Your task to perform on an android device: change notifications settings Image 0: 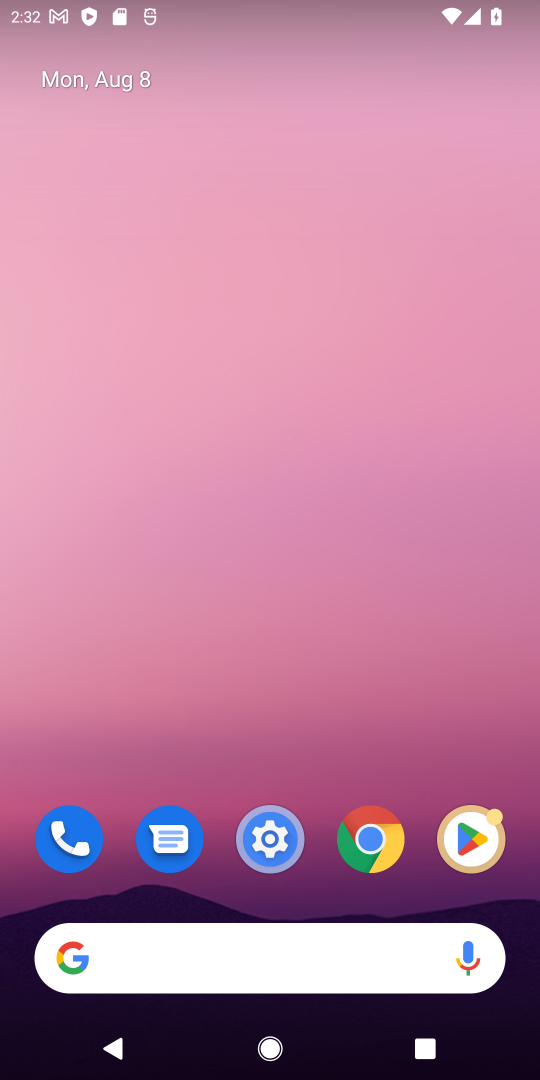
Step 0: drag from (309, 792) to (311, 110)
Your task to perform on an android device: change notifications settings Image 1: 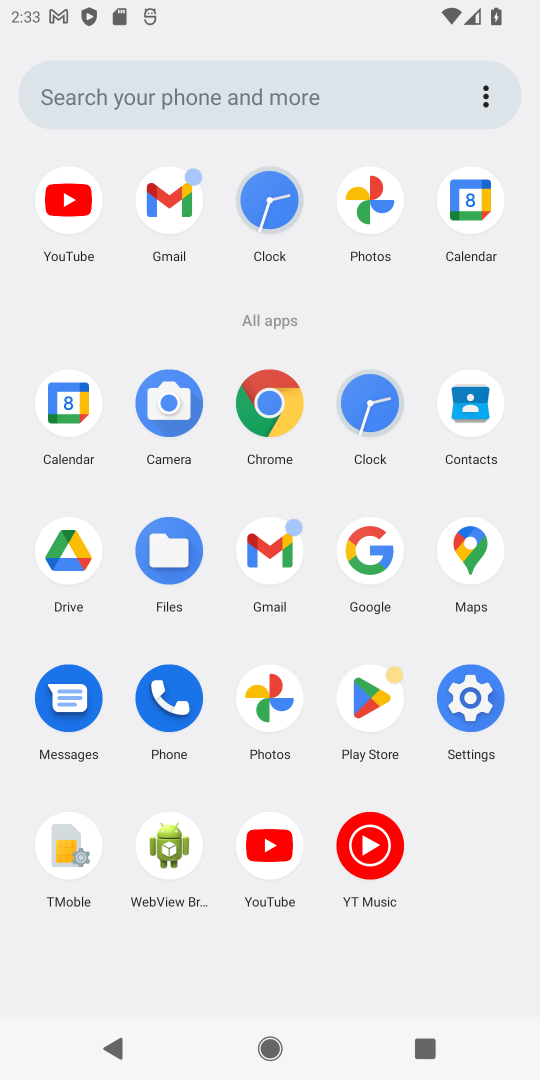
Step 1: click (467, 704)
Your task to perform on an android device: change notifications settings Image 2: 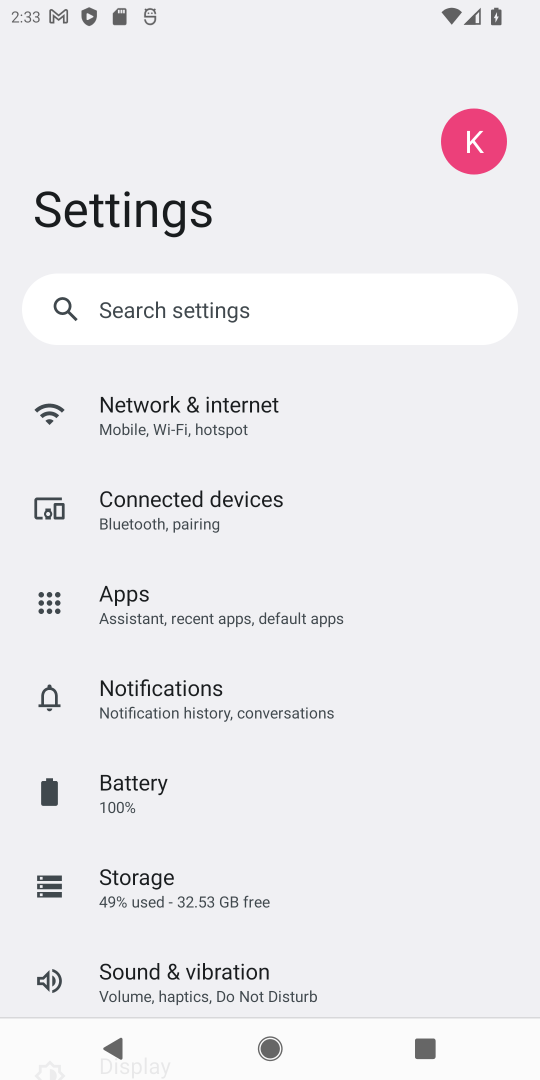
Step 2: drag from (422, 843) to (423, 514)
Your task to perform on an android device: change notifications settings Image 3: 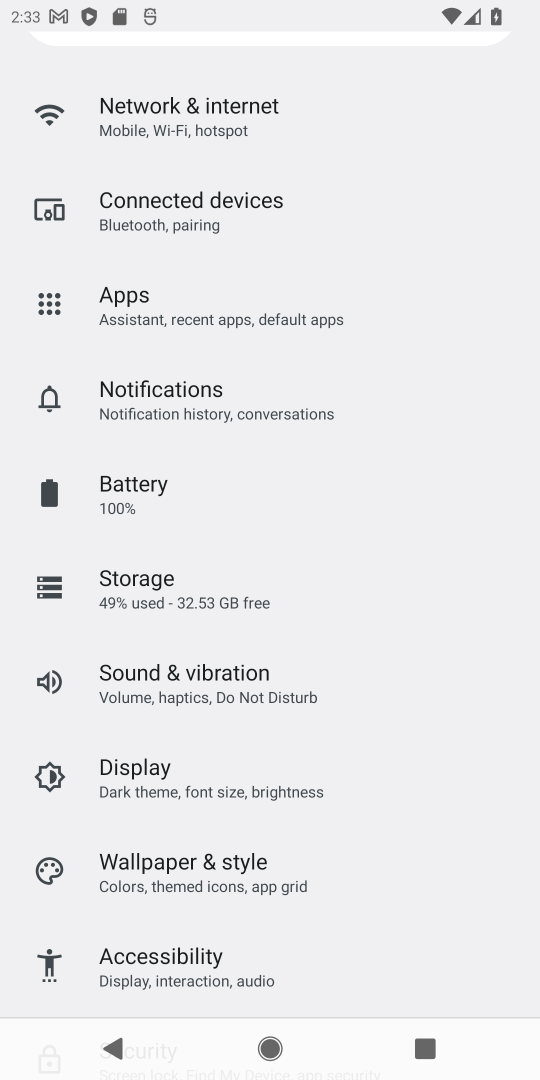
Step 3: drag from (382, 915) to (426, 484)
Your task to perform on an android device: change notifications settings Image 4: 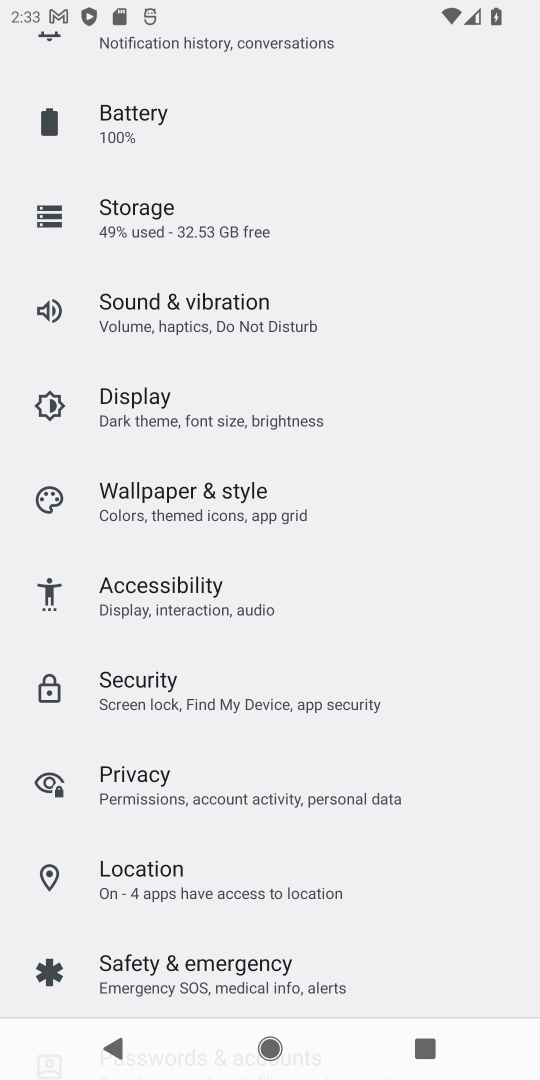
Step 4: drag from (450, 592) to (446, 449)
Your task to perform on an android device: change notifications settings Image 5: 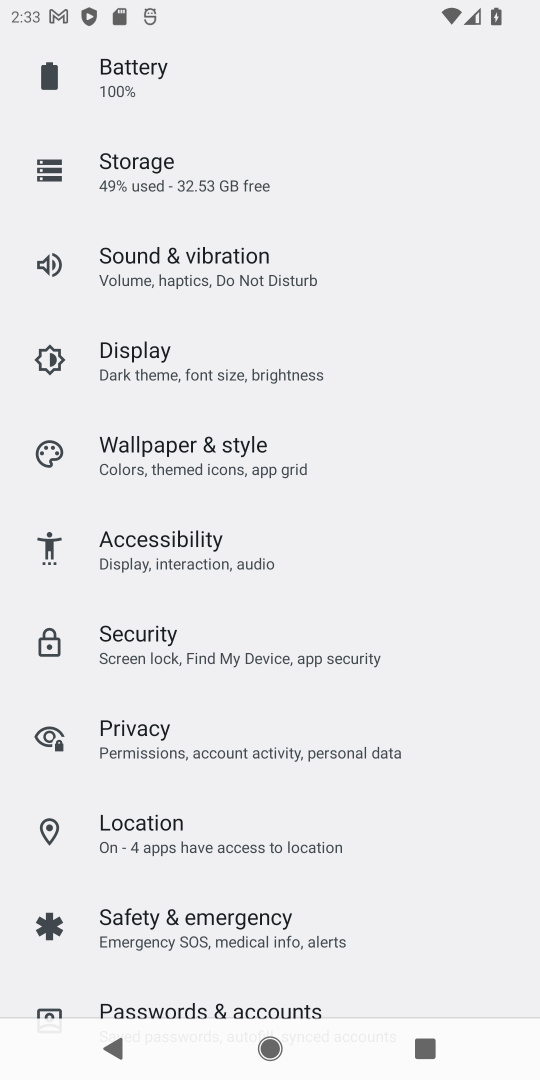
Step 5: drag from (439, 832) to (444, 472)
Your task to perform on an android device: change notifications settings Image 6: 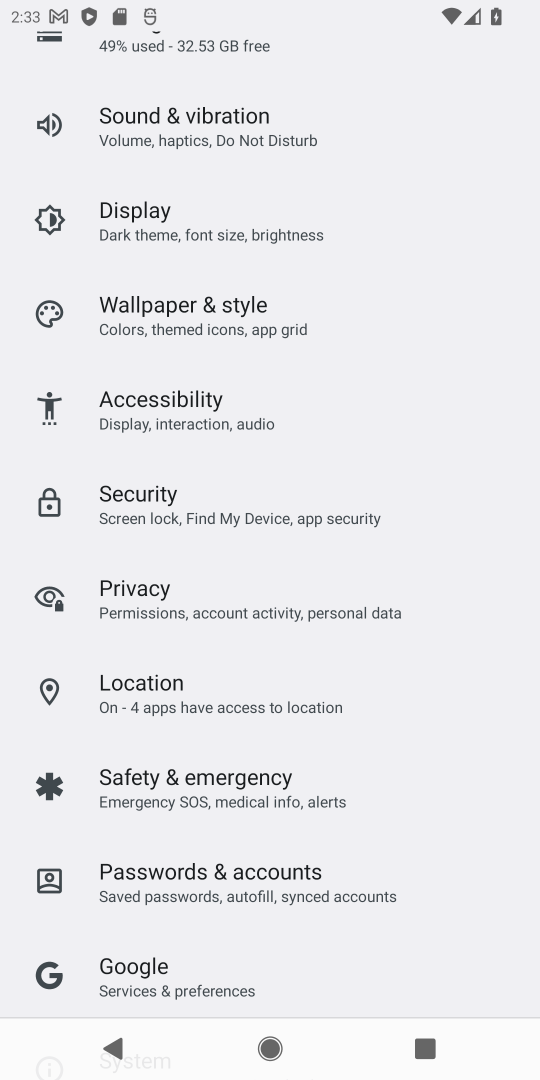
Step 6: drag from (429, 745) to (455, 375)
Your task to perform on an android device: change notifications settings Image 7: 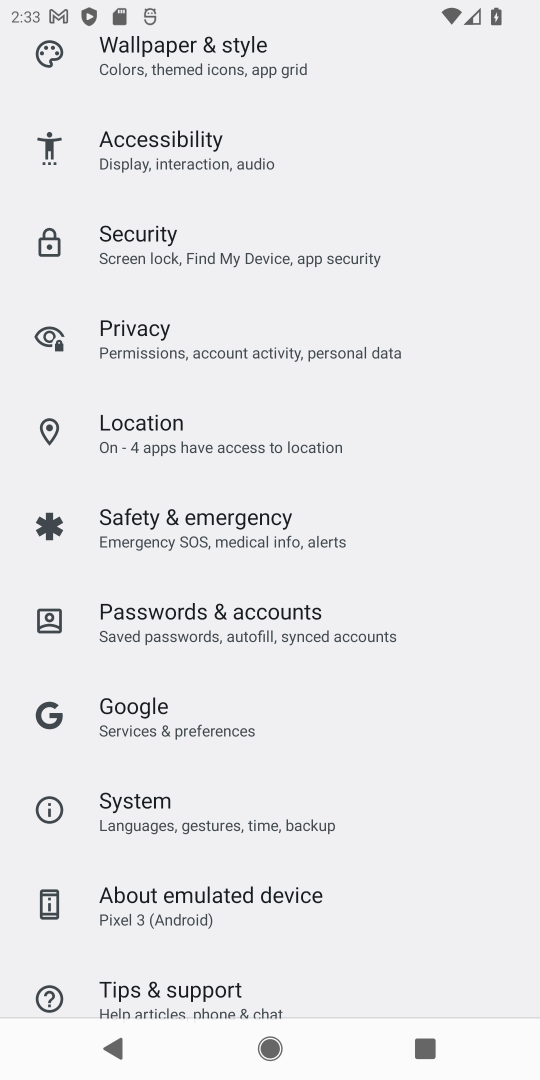
Step 7: drag from (422, 702) to (442, 309)
Your task to perform on an android device: change notifications settings Image 8: 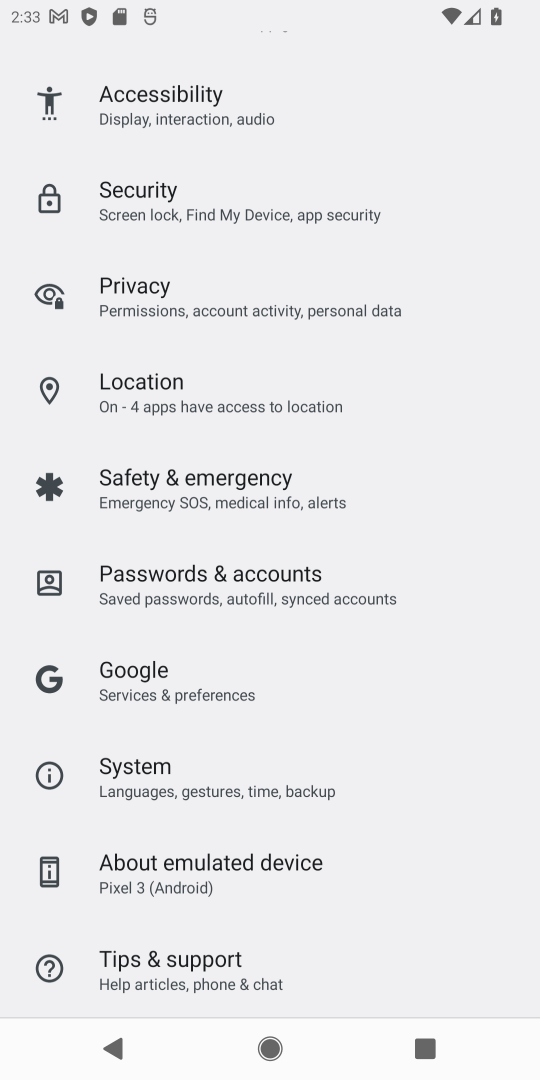
Step 8: click (431, 664)
Your task to perform on an android device: change notifications settings Image 9: 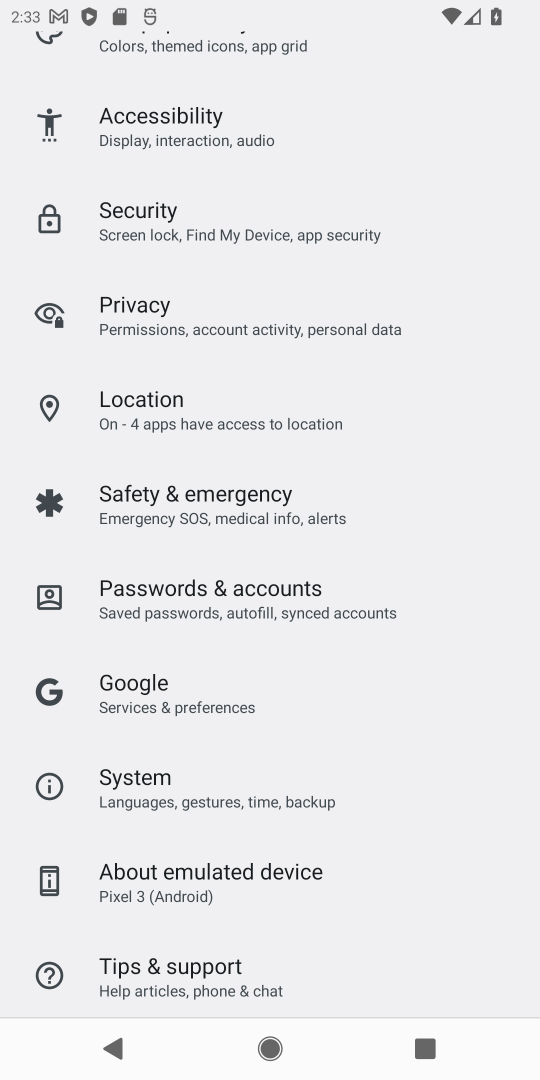
Step 9: drag from (438, 258) to (468, 645)
Your task to perform on an android device: change notifications settings Image 10: 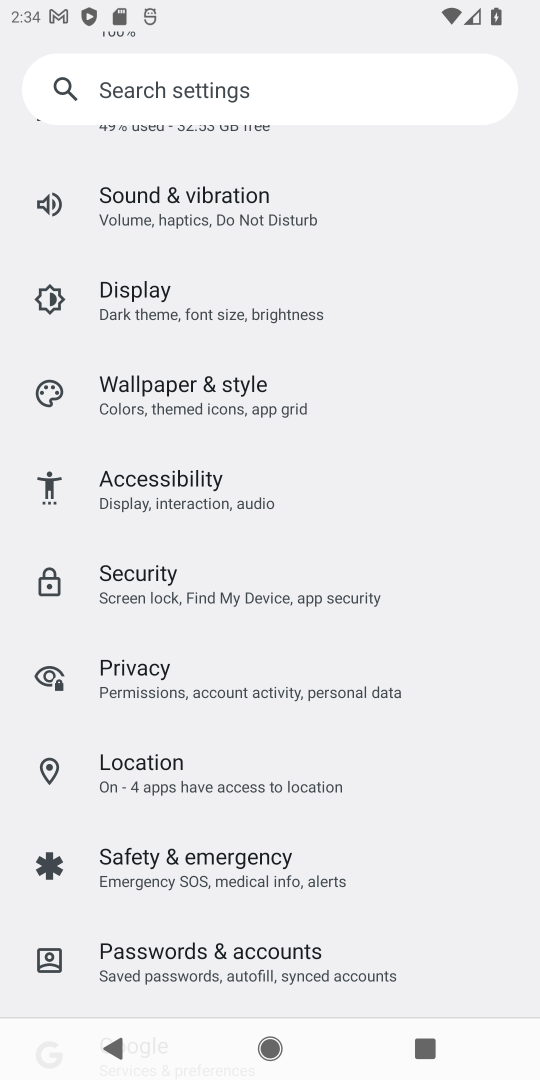
Step 10: drag from (465, 260) to (453, 609)
Your task to perform on an android device: change notifications settings Image 11: 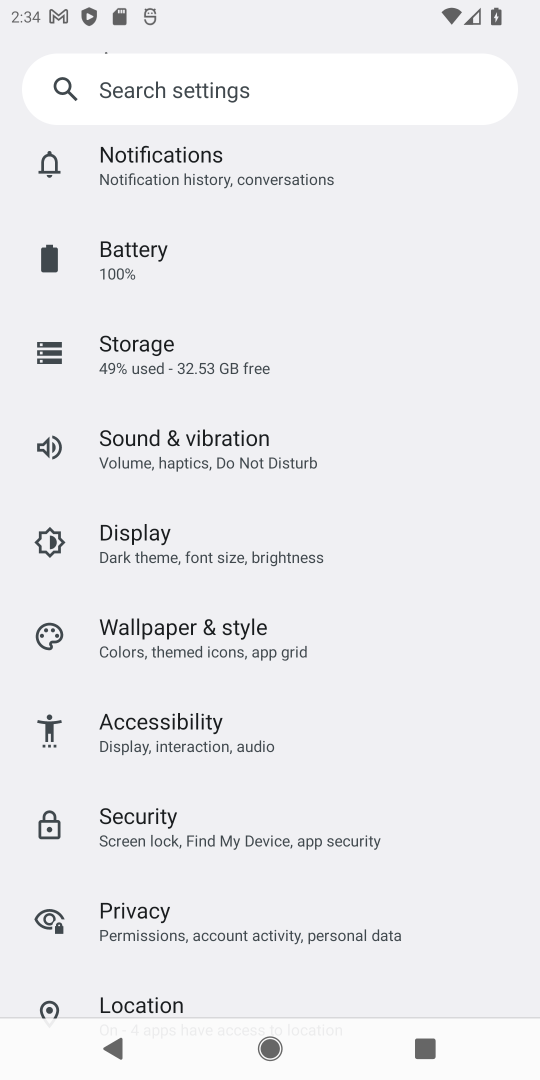
Step 11: drag from (447, 272) to (449, 580)
Your task to perform on an android device: change notifications settings Image 12: 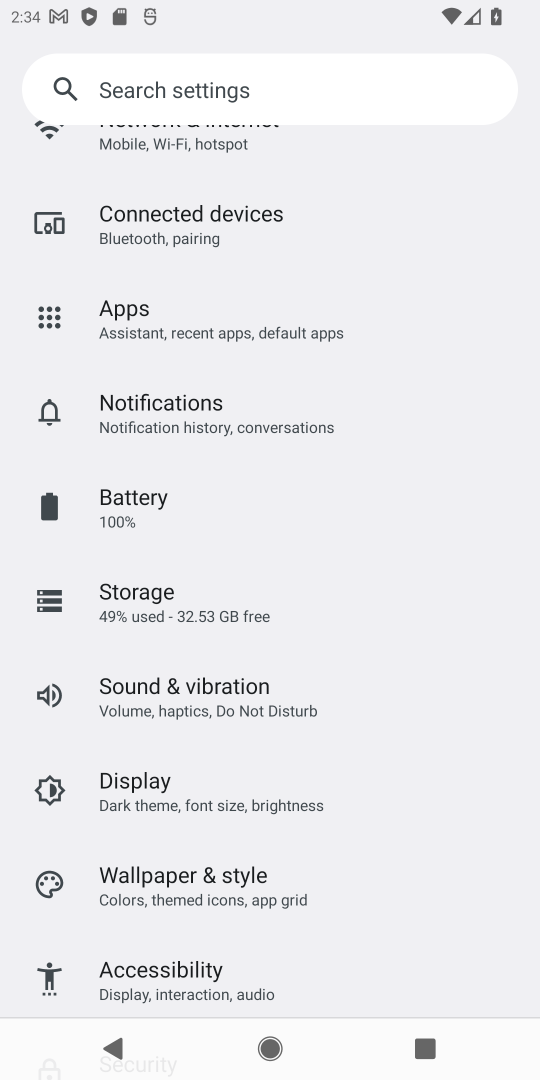
Step 12: drag from (446, 457) to (446, 543)
Your task to perform on an android device: change notifications settings Image 13: 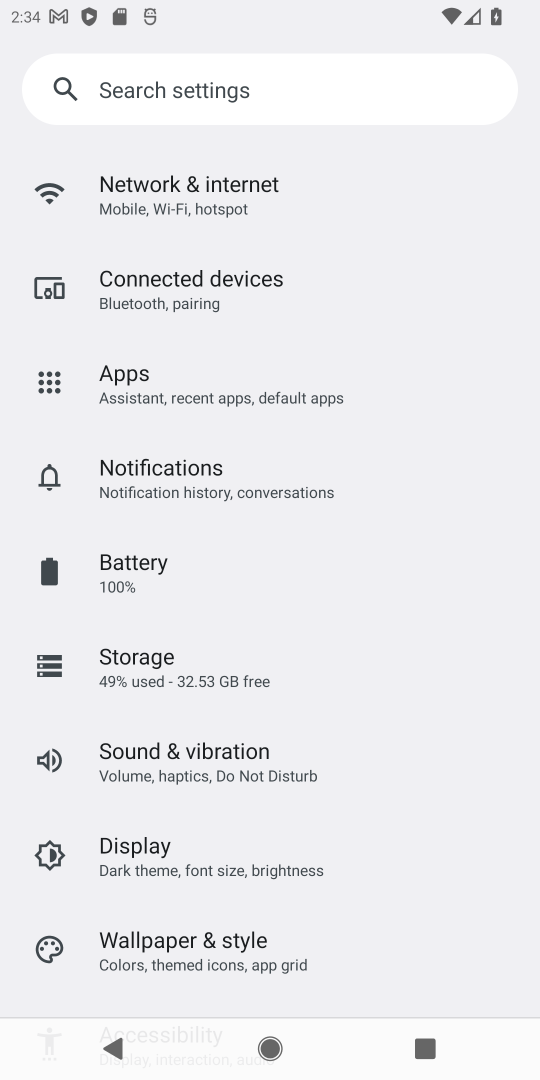
Step 13: drag from (416, 342) to (438, 538)
Your task to perform on an android device: change notifications settings Image 14: 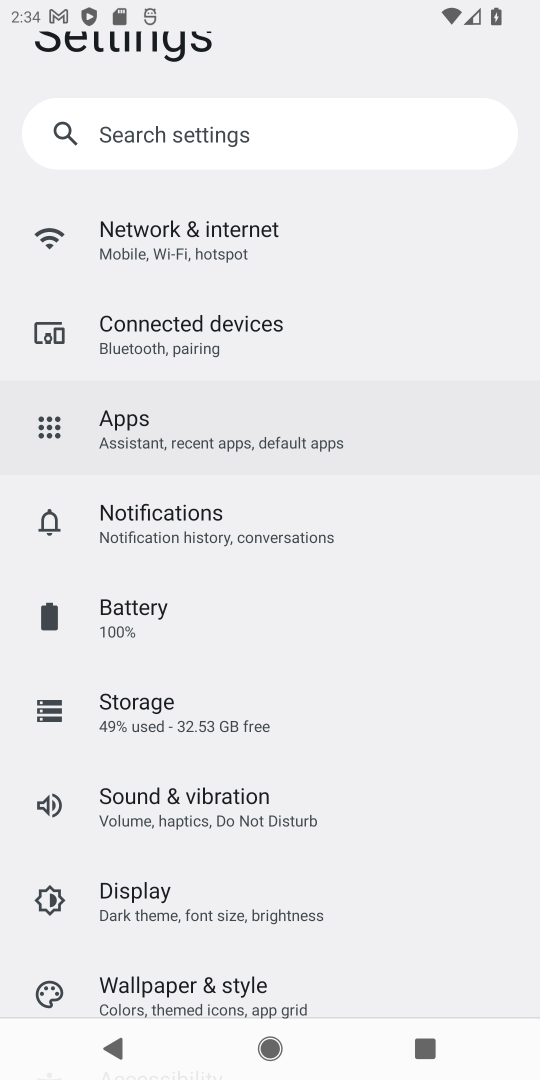
Step 14: drag from (422, 284) to (444, 636)
Your task to perform on an android device: change notifications settings Image 15: 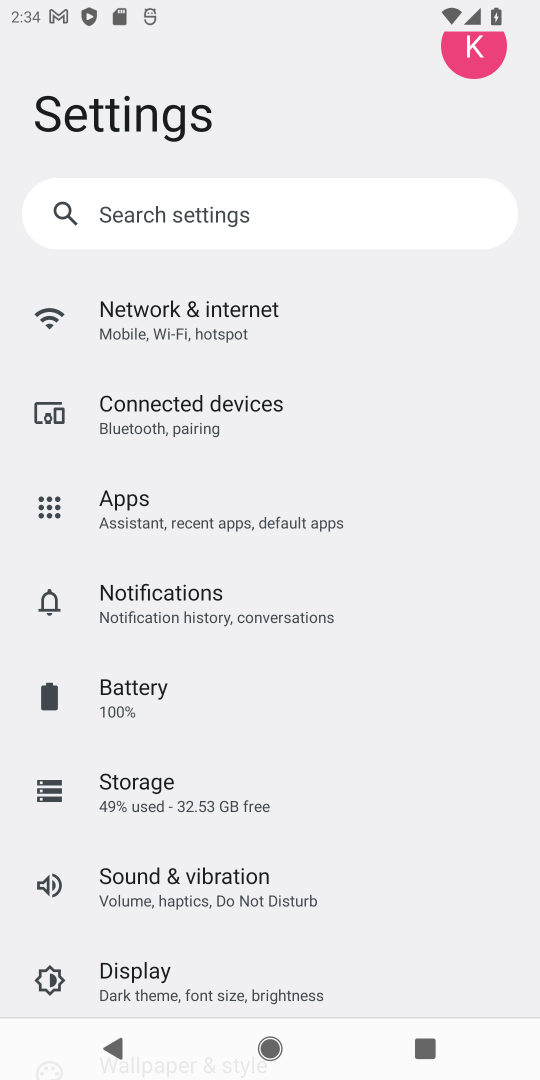
Step 15: drag from (403, 93) to (417, 636)
Your task to perform on an android device: change notifications settings Image 16: 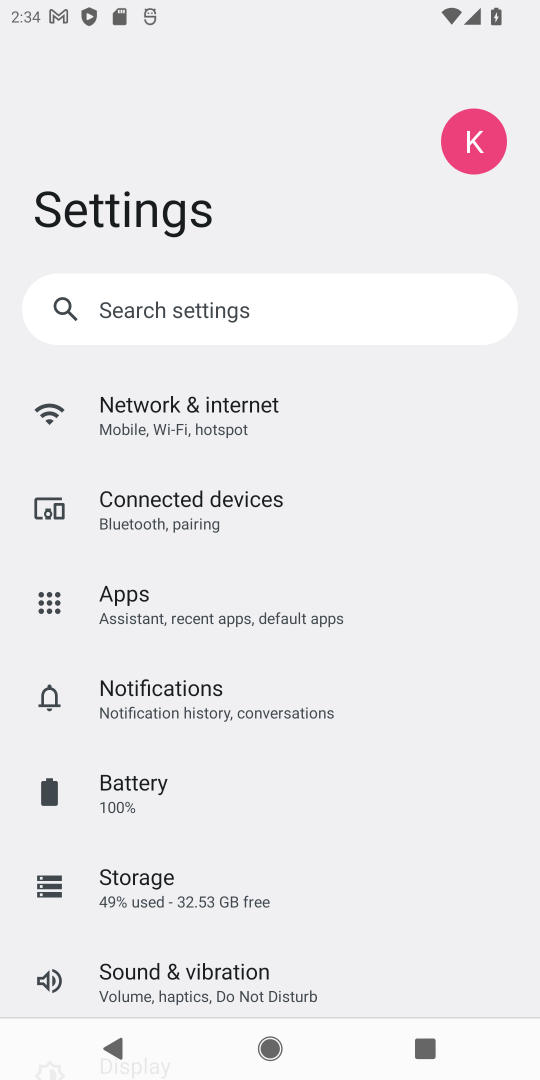
Step 16: click (216, 415)
Your task to perform on an android device: change notifications settings Image 17: 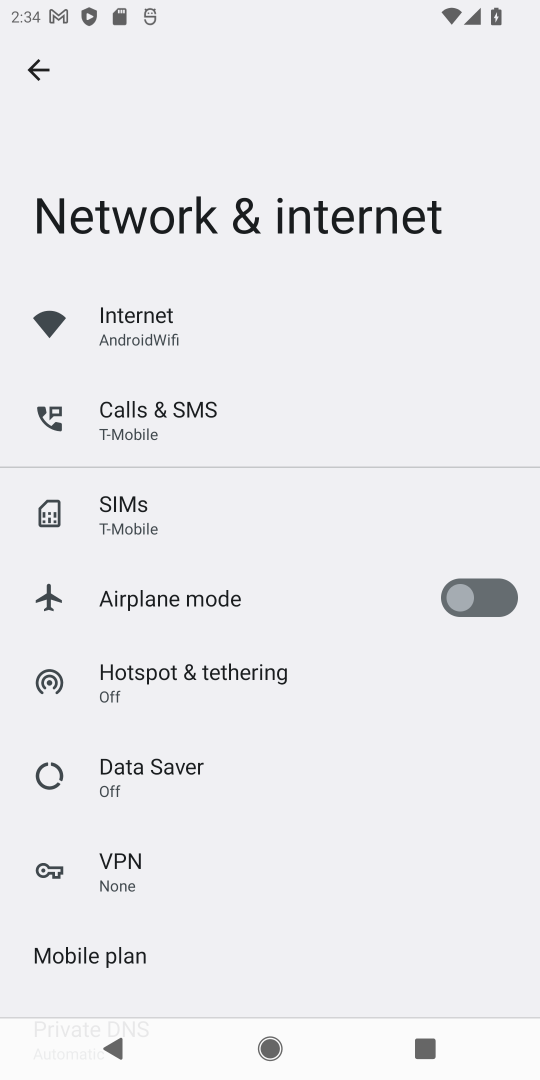
Step 17: click (34, 65)
Your task to perform on an android device: change notifications settings Image 18: 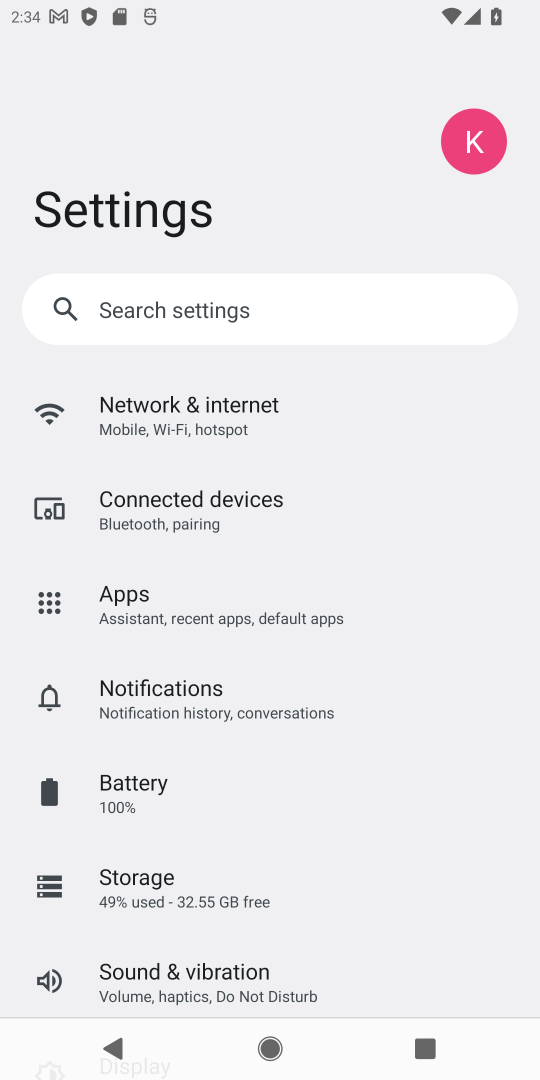
Step 18: click (220, 700)
Your task to perform on an android device: change notifications settings Image 19: 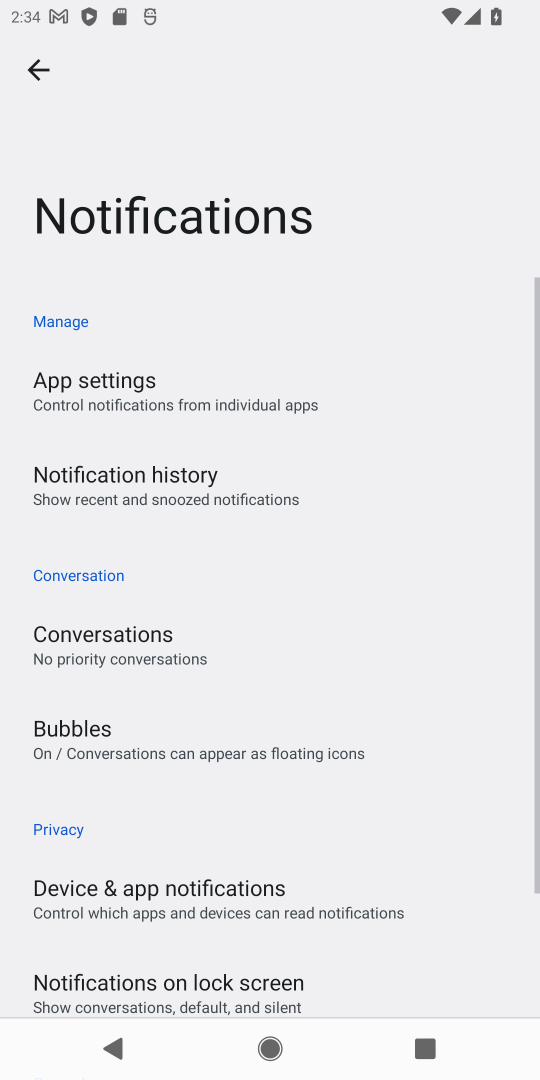
Step 19: drag from (403, 825) to (453, 415)
Your task to perform on an android device: change notifications settings Image 20: 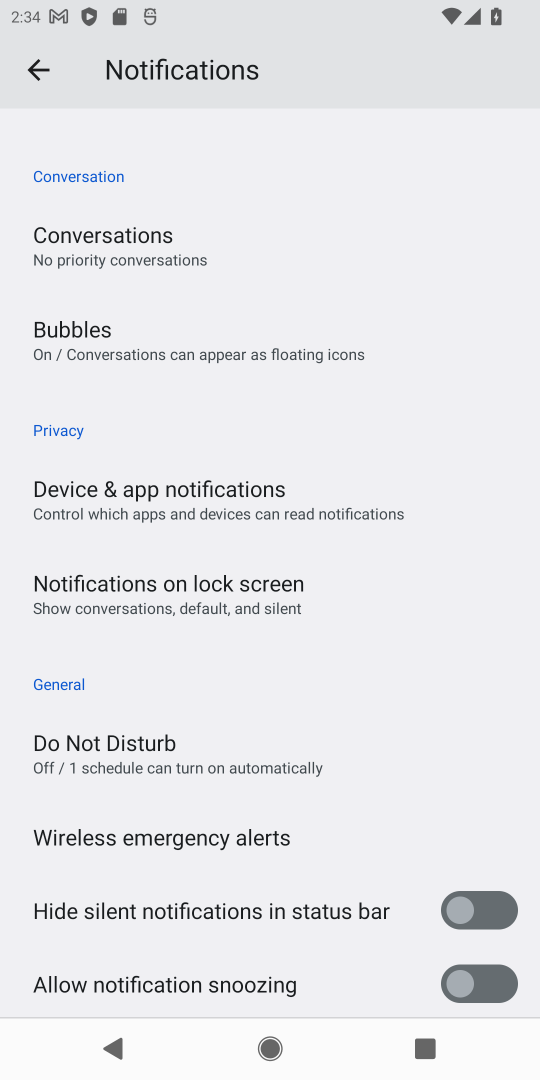
Step 20: drag from (394, 816) to (424, 425)
Your task to perform on an android device: change notifications settings Image 21: 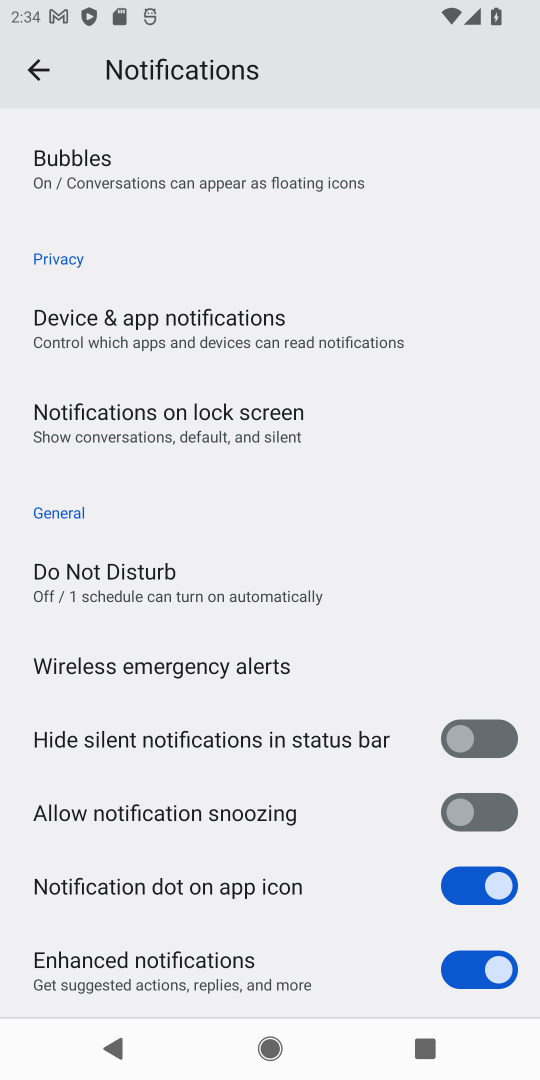
Step 21: click (480, 895)
Your task to perform on an android device: change notifications settings Image 22: 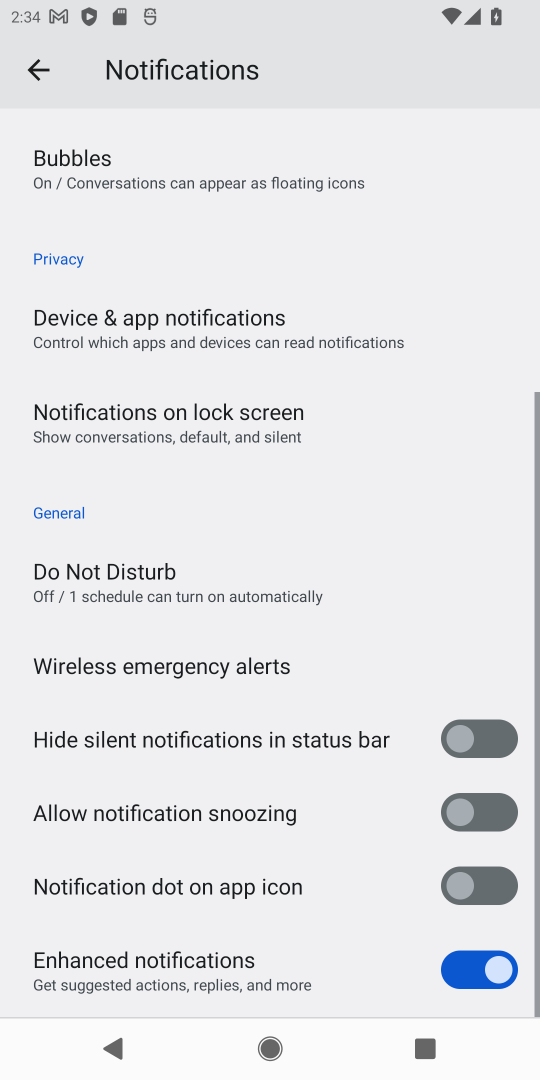
Step 22: click (477, 974)
Your task to perform on an android device: change notifications settings Image 23: 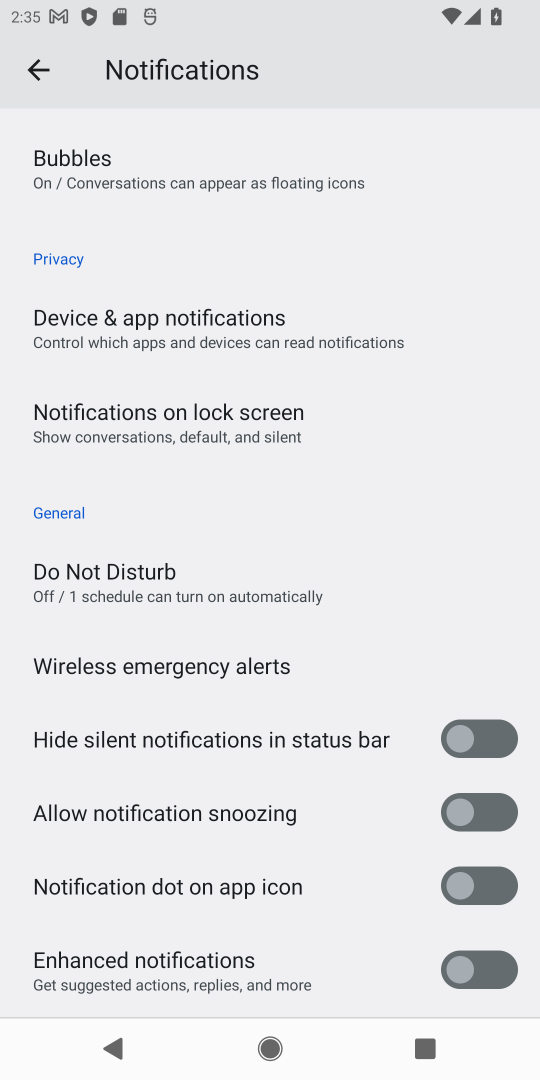
Step 23: task complete